Your task to perform on an android device: Open the stopwatch Image 0: 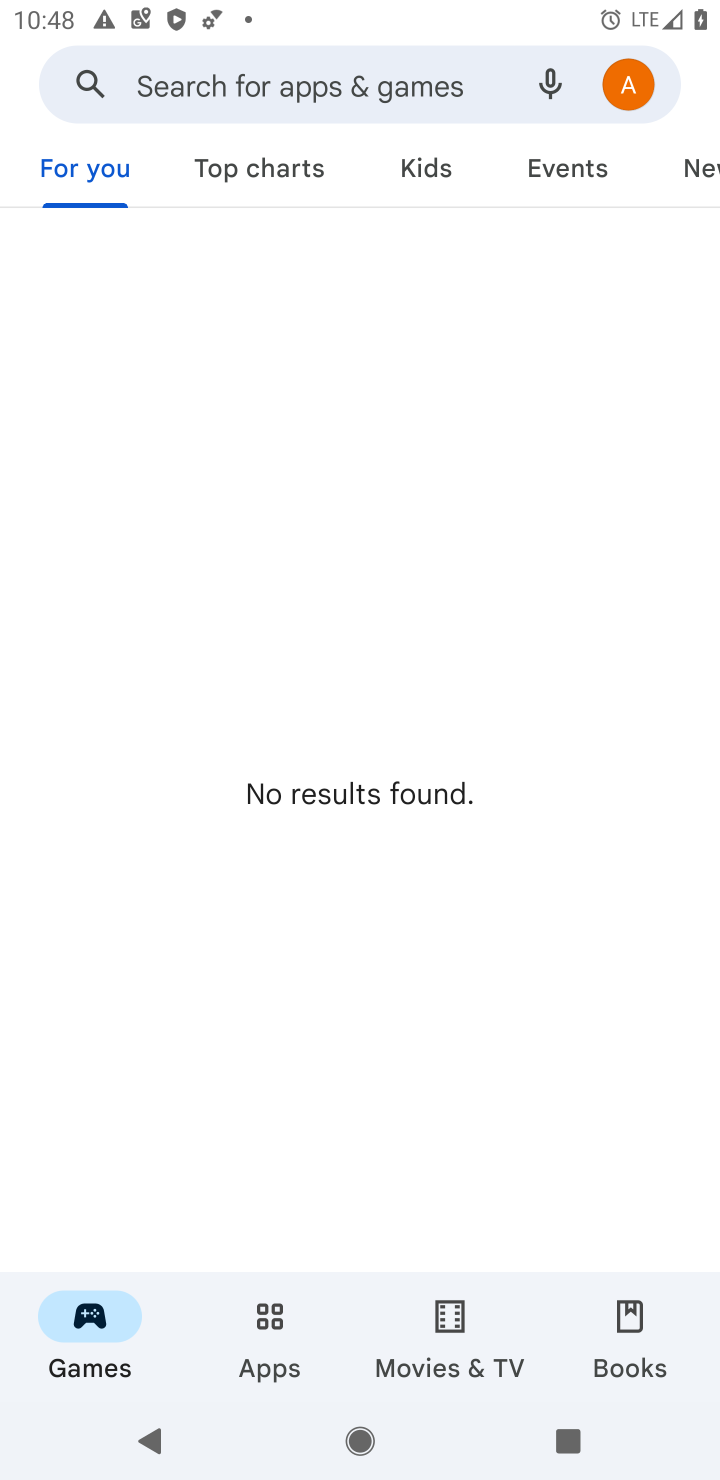
Step 0: press home button
Your task to perform on an android device: Open the stopwatch Image 1: 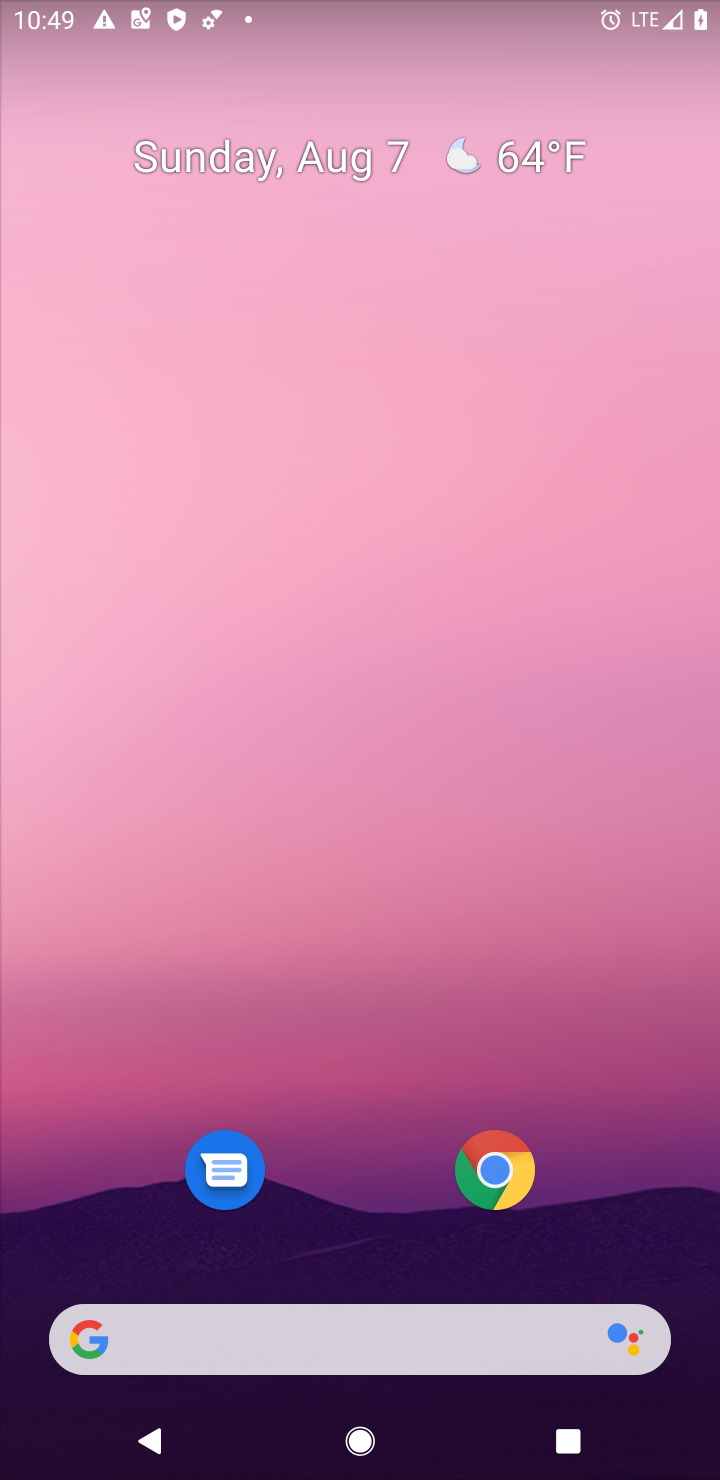
Step 1: drag from (510, 1160) to (499, 9)
Your task to perform on an android device: Open the stopwatch Image 2: 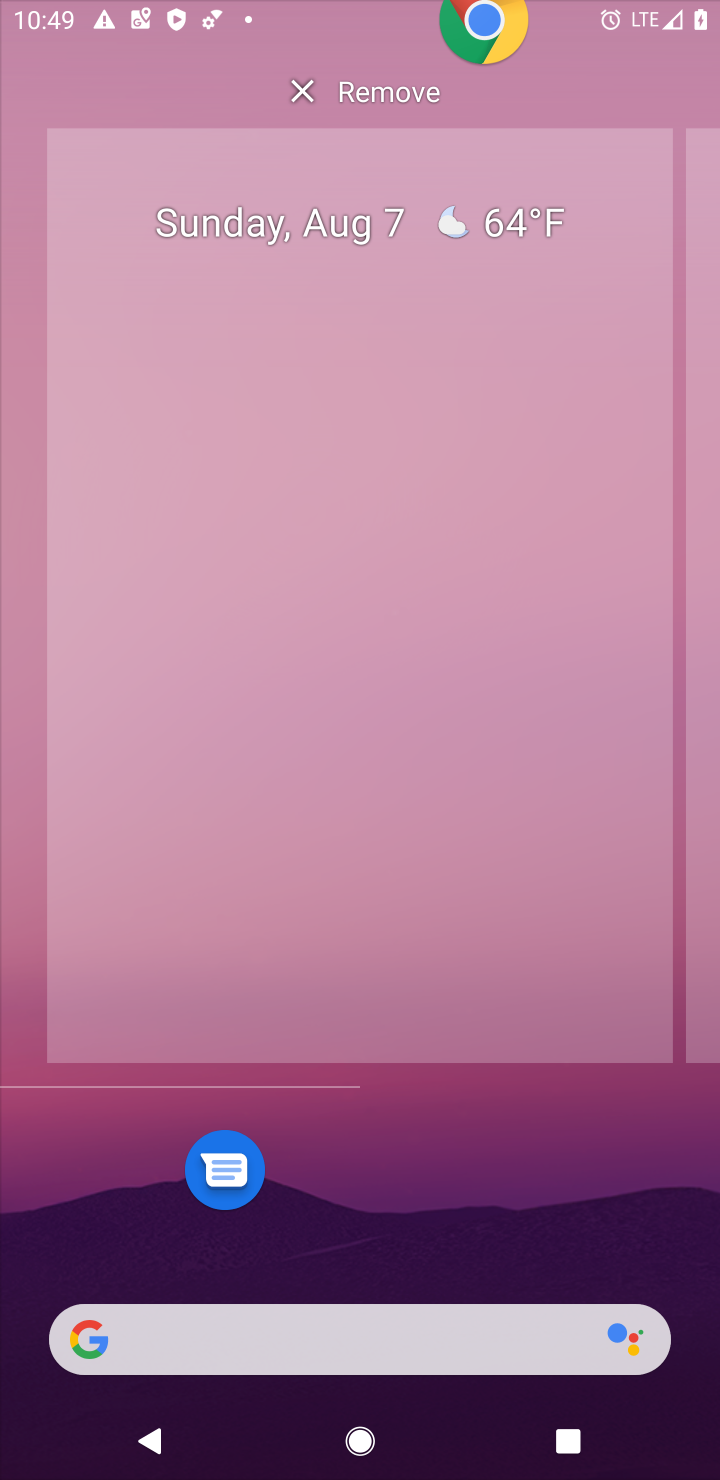
Step 2: drag from (319, 944) to (388, 248)
Your task to perform on an android device: Open the stopwatch Image 3: 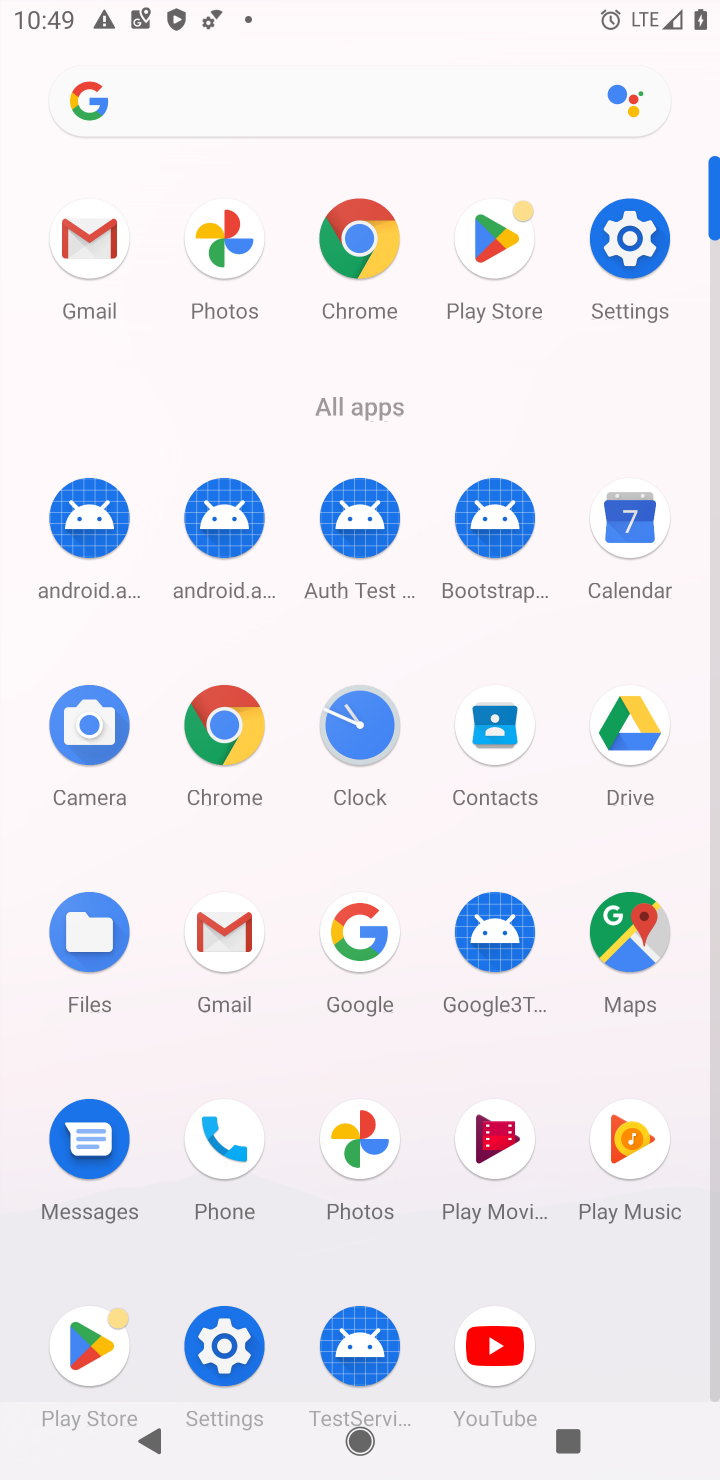
Step 3: click (350, 717)
Your task to perform on an android device: Open the stopwatch Image 4: 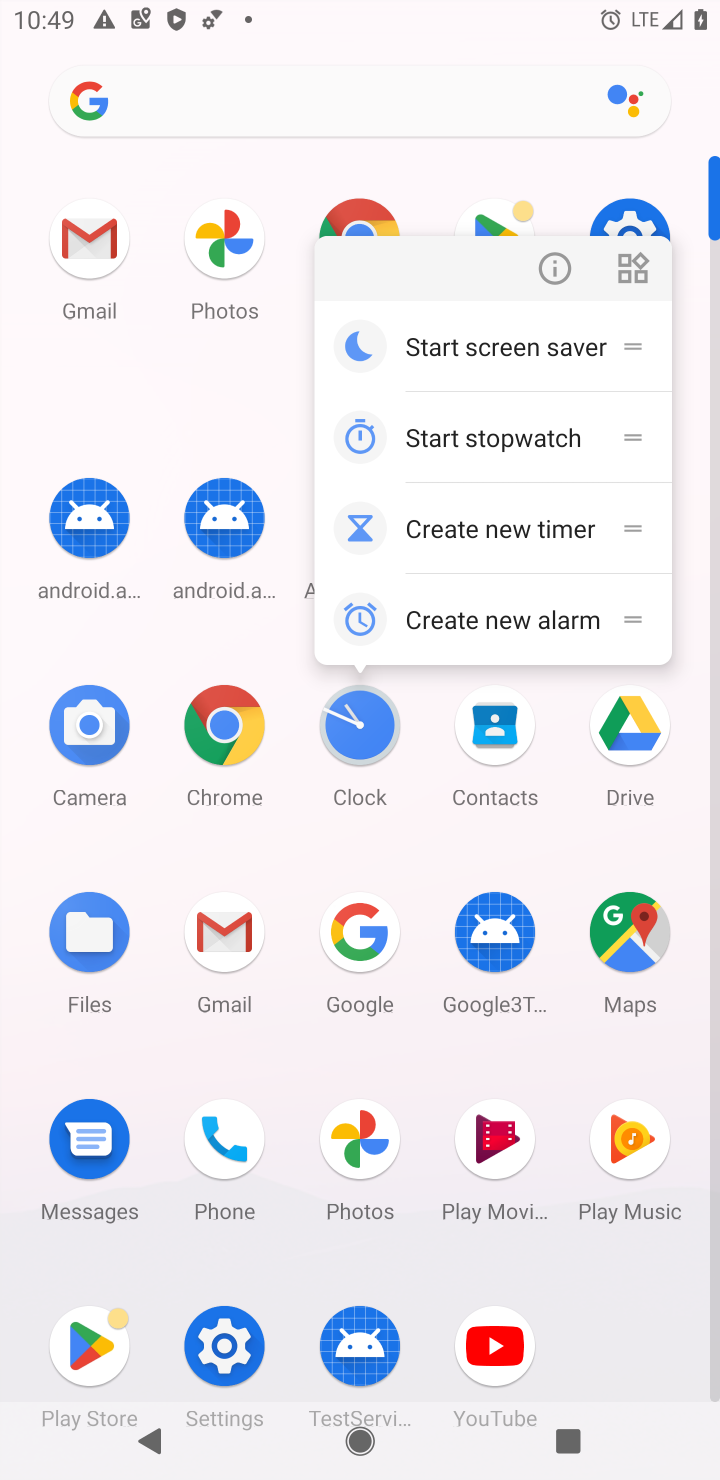
Step 4: click (350, 717)
Your task to perform on an android device: Open the stopwatch Image 5: 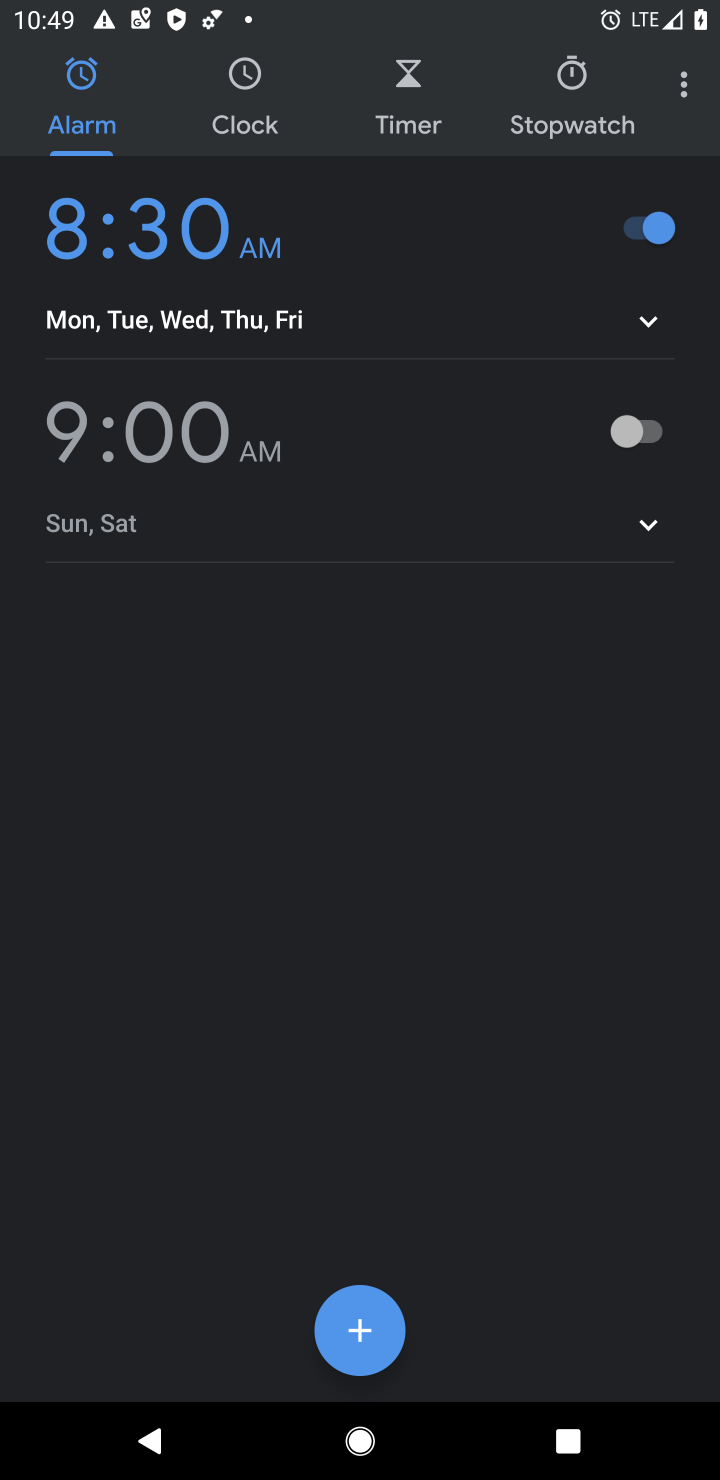
Step 5: click (578, 85)
Your task to perform on an android device: Open the stopwatch Image 6: 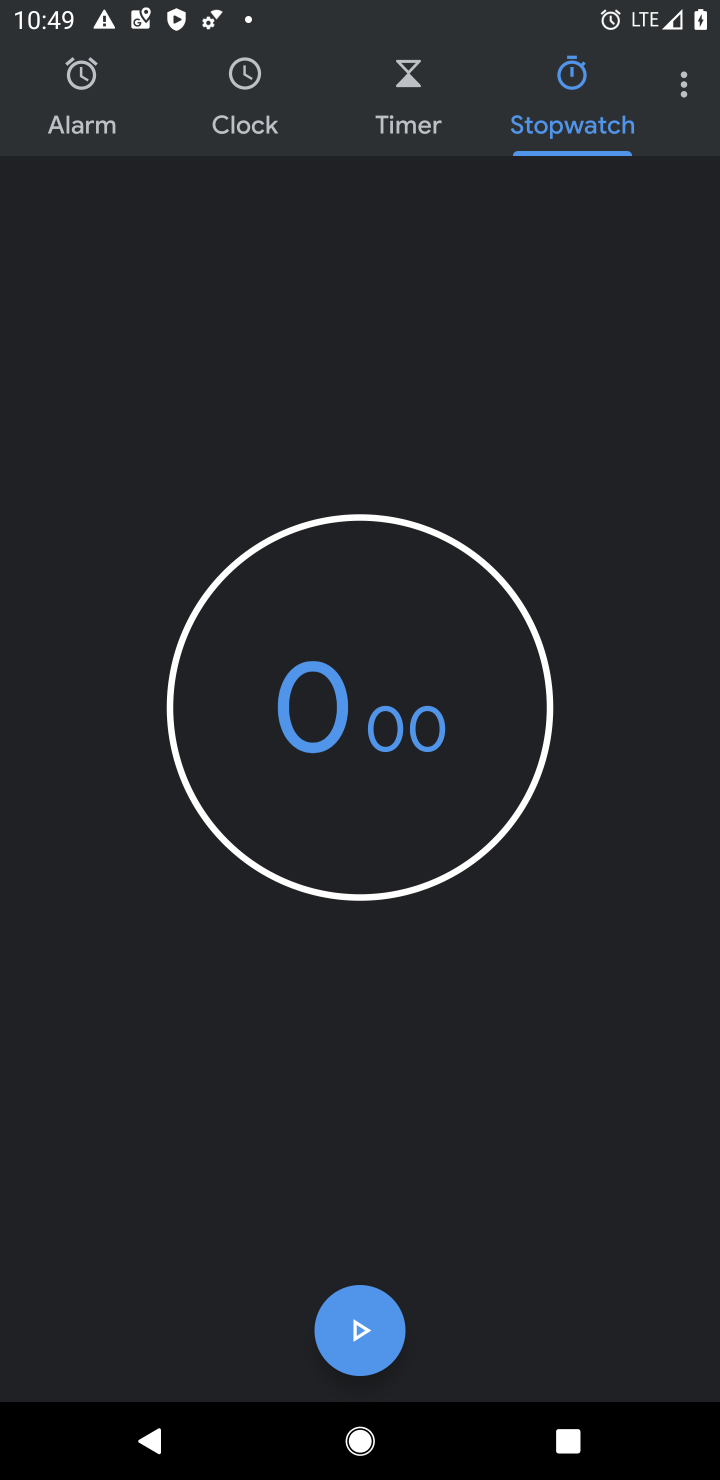
Step 6: click (369, 1313)
Your task to perform on an android device: Open the stopwatch Image 7: 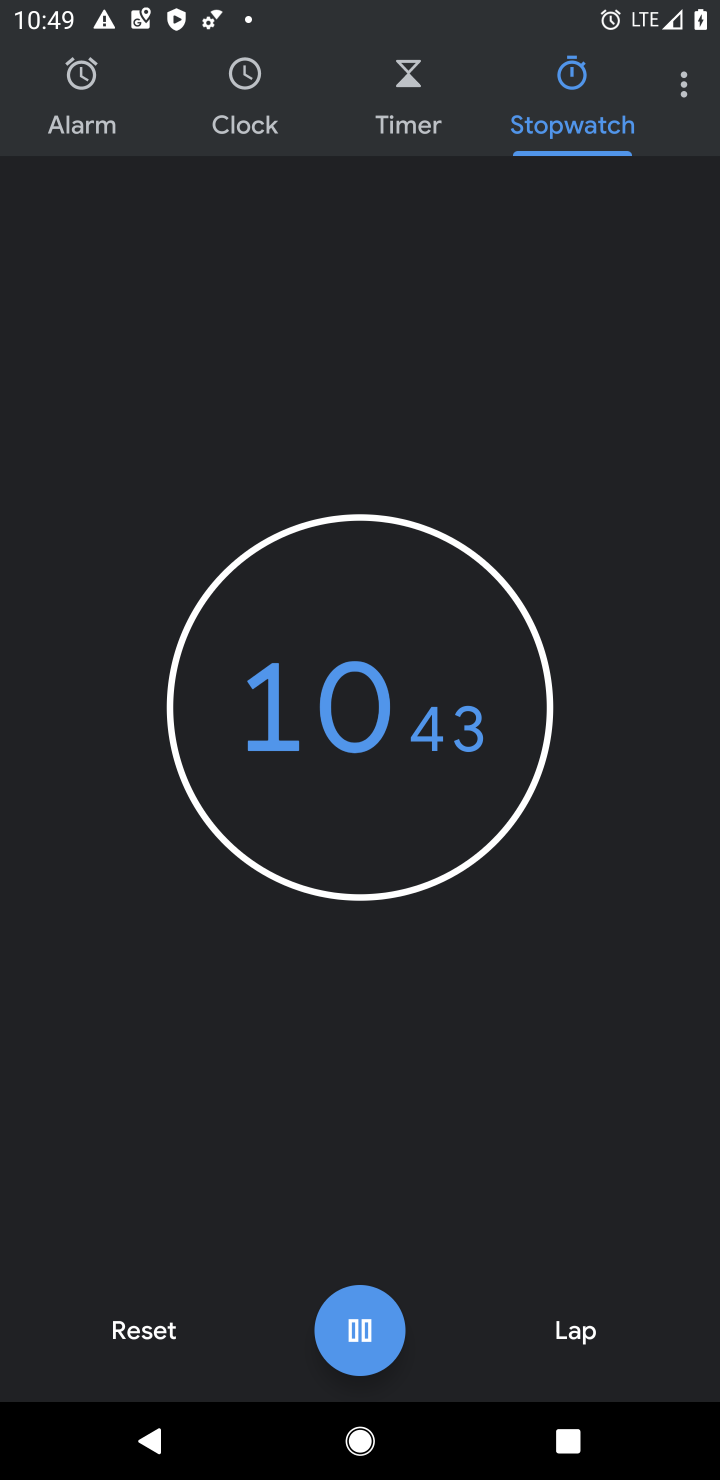
Step 7: task complete